Your task to perform on an android device: turn pop-ups off in chrome Image 0: 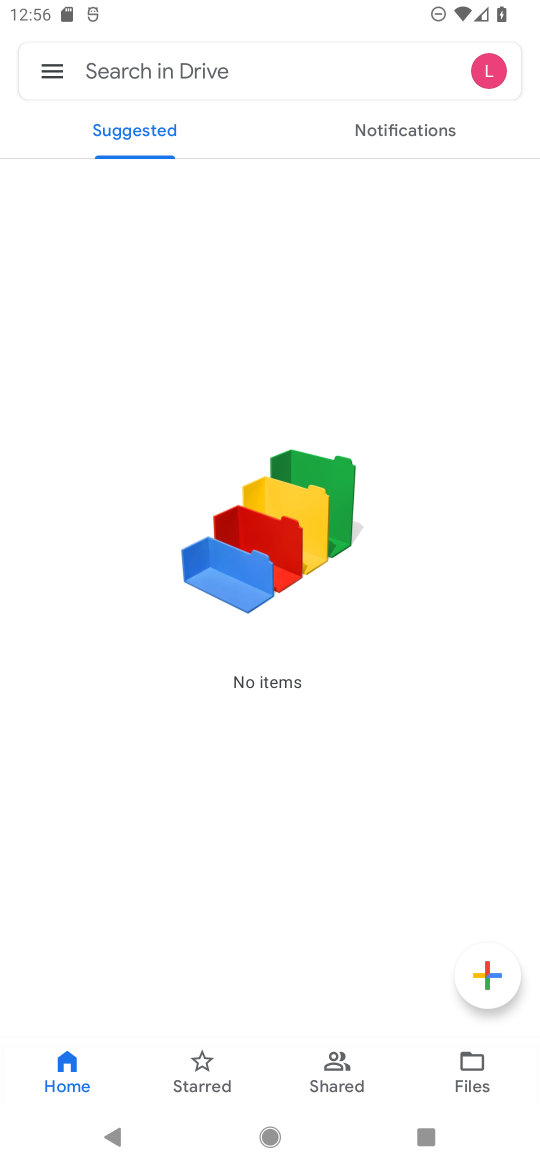
Step 0: press home button
Your task to perform on an android device: turn pop-ups off in chrome Image 1: 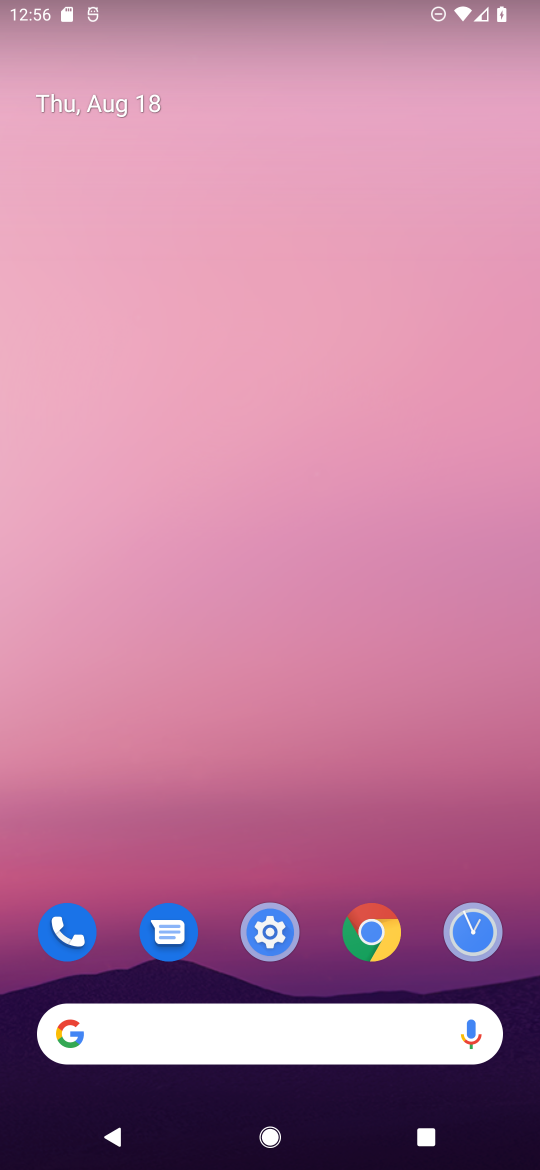
Step 1: click (370, 927)
Your task to perform on an android device: turn pop-ups off in chrome Image 2: 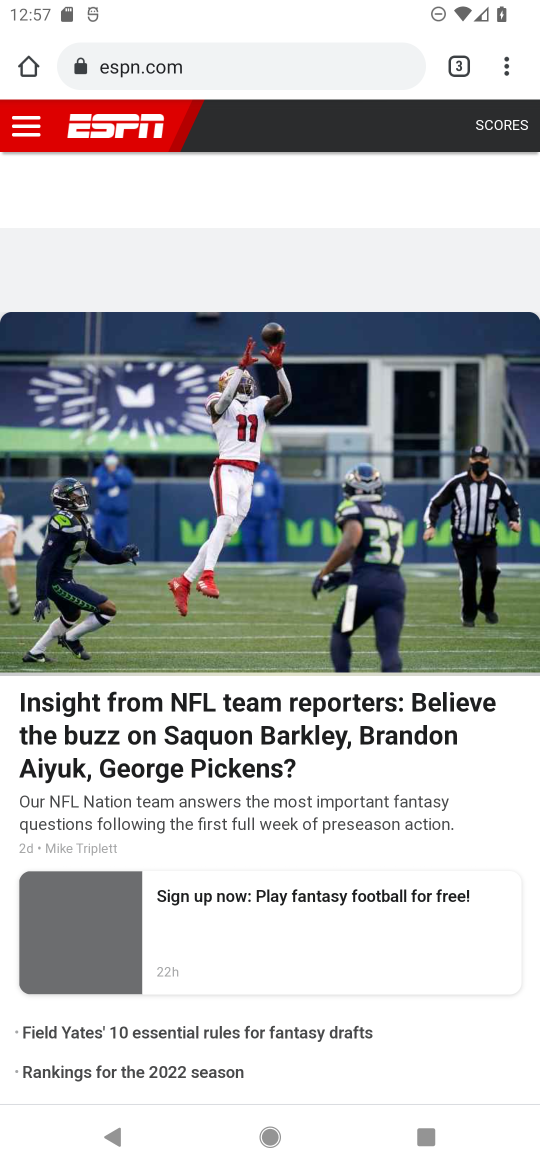
Step 2: click (502, 61)
Your task to perform on an android device: turn pop-ups off in chrome Image 3: 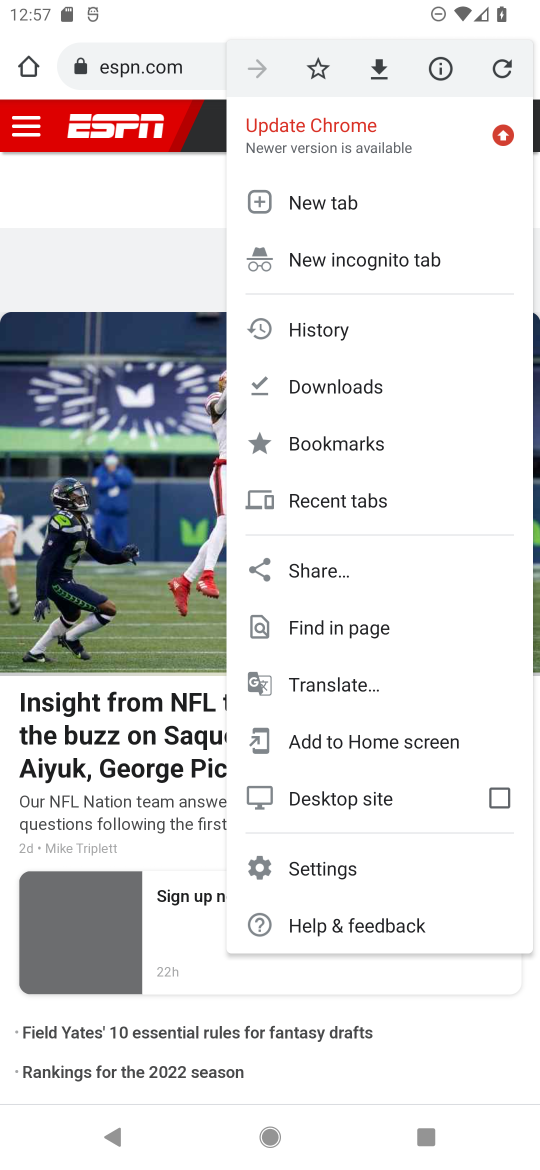
Step 3: click (335, 866)
Your task to perform on an android device: turn pop-ups off in chrome Image 4: 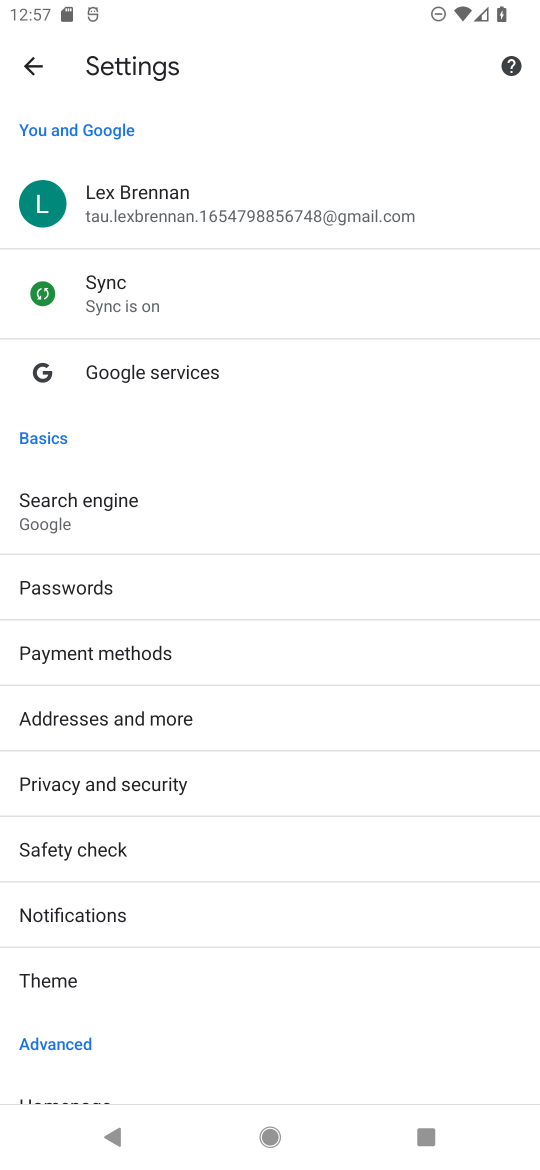
Step 4: drag from (244, 893) to (212, 472)
Your task to perform on an android device: turn pop-ups off in chrome Image 5: 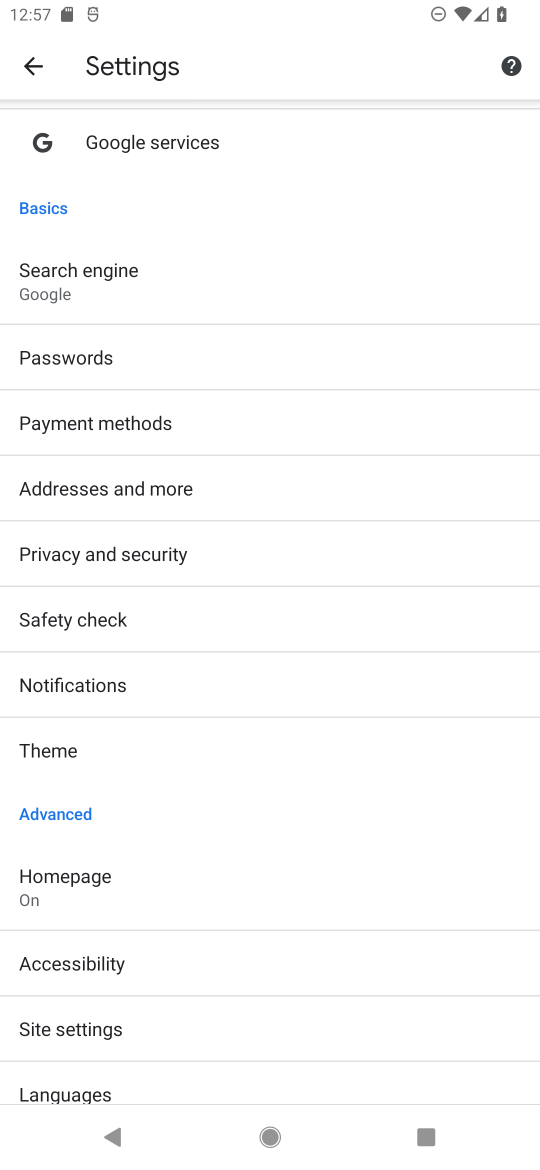
Step 5: click (106, 1022)
Your task to perform on an android device: turn pop-ups off in chrome Image 6: 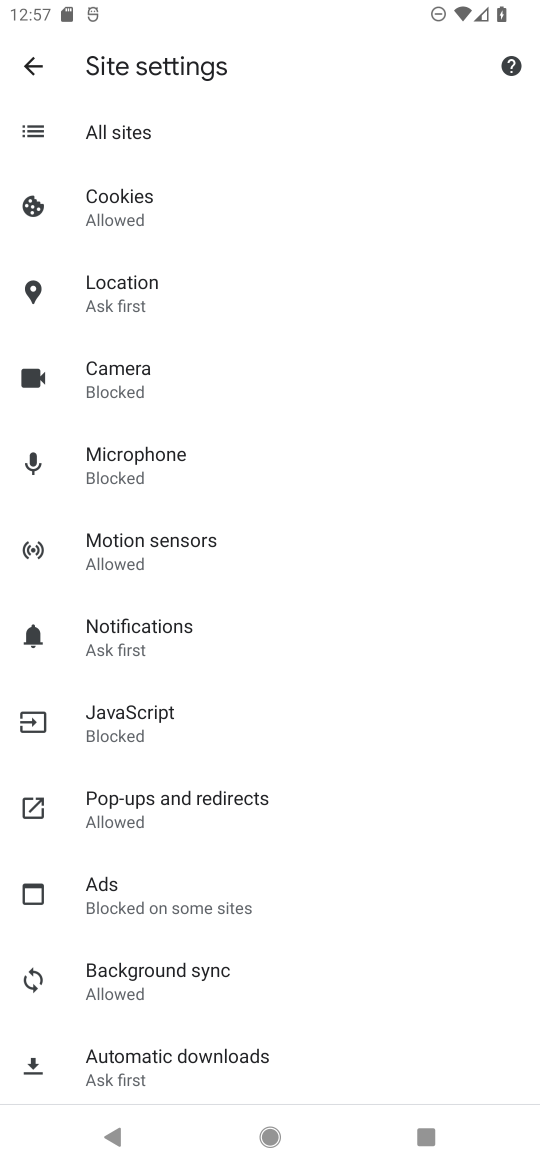
Step 6: click (148, 798)
Your task to perform on an android device: turn pop-ups off in chrome Image 7: 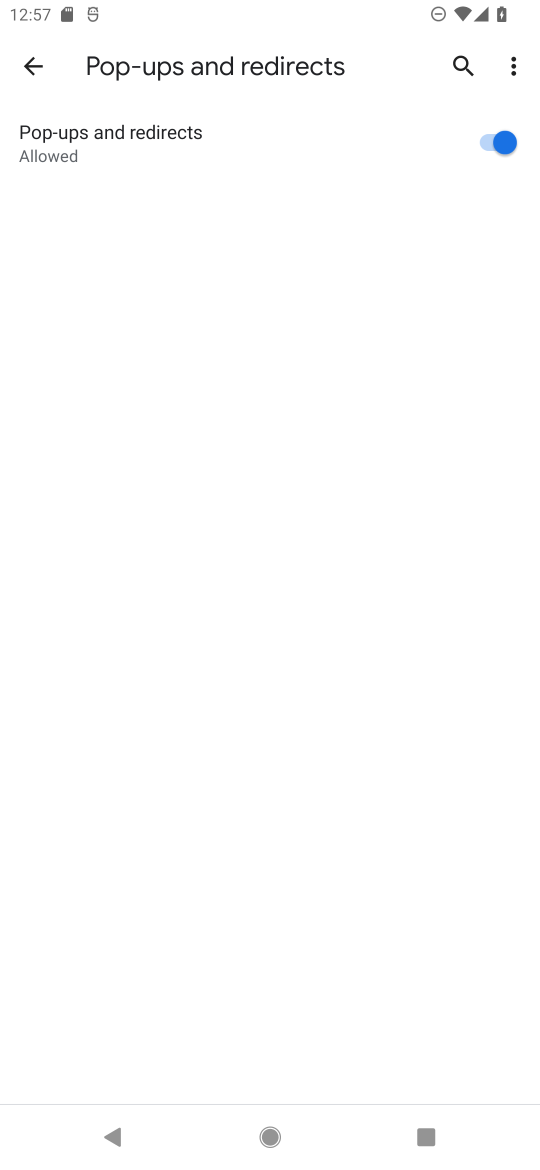
Step 7: click (498, 131)
Your task to perform on an android device: turn pop-ups off in chrome Image 8: 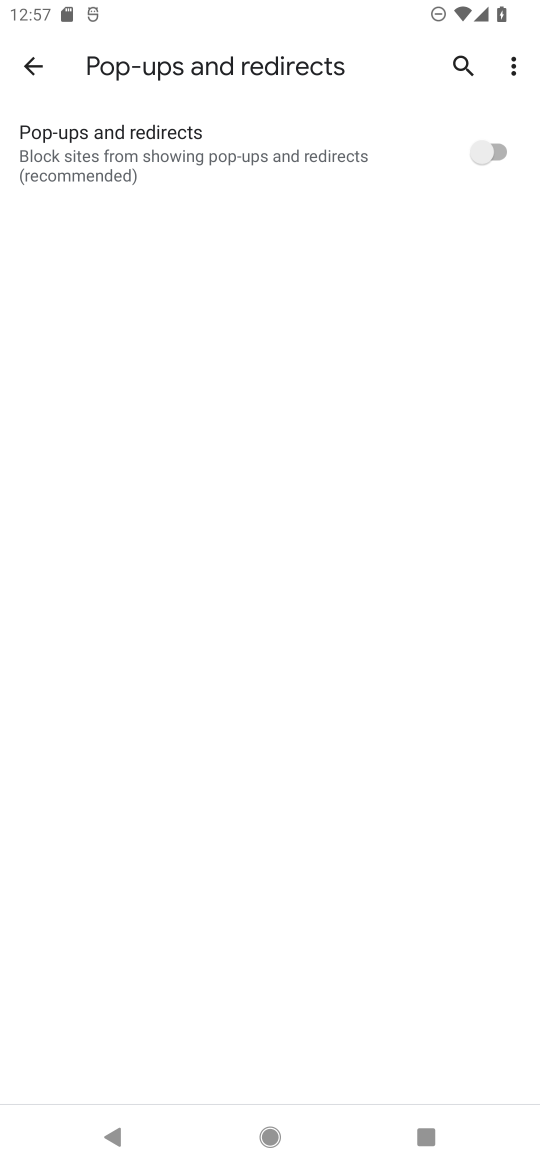
Step 8: task complete